Your task to perform on an android device: Go to settings Image 0: 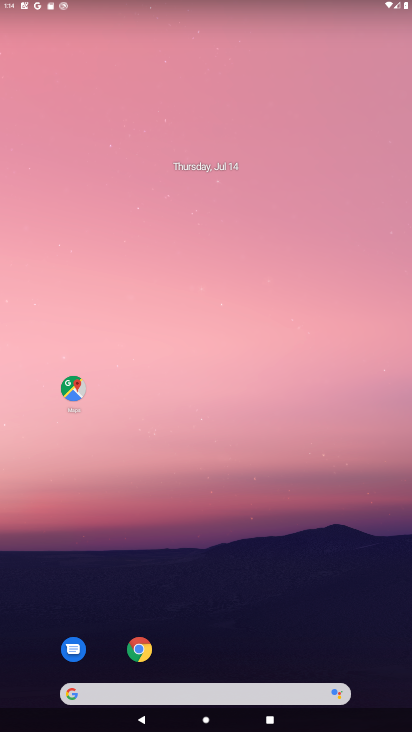
Step 0: drag from (232, 501) to (248, 24)
Your task to perform on an android device: Go to settings Image 1: 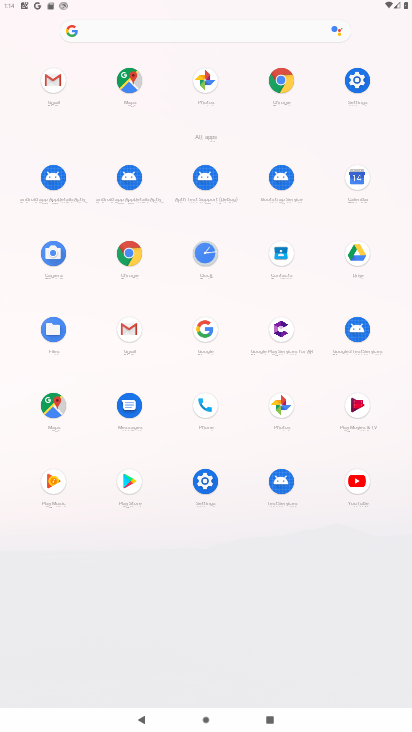
Step 1: click (356, 85)
Your task to perform on an android device: Go to settings Image 2: 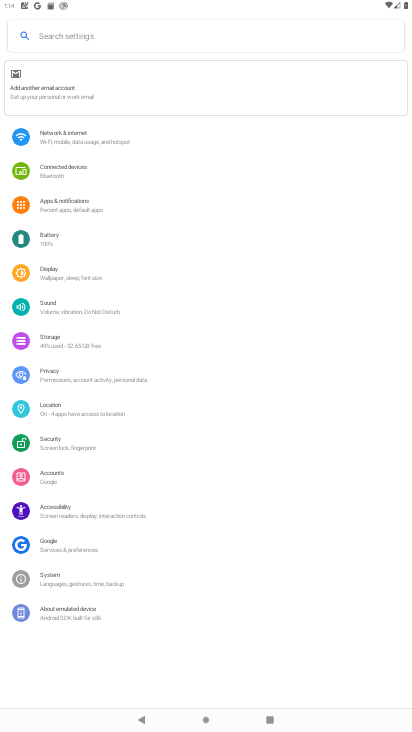
Step 2: task complete